Your task to perform on an android device: turn off improve location accuracy Image 0: 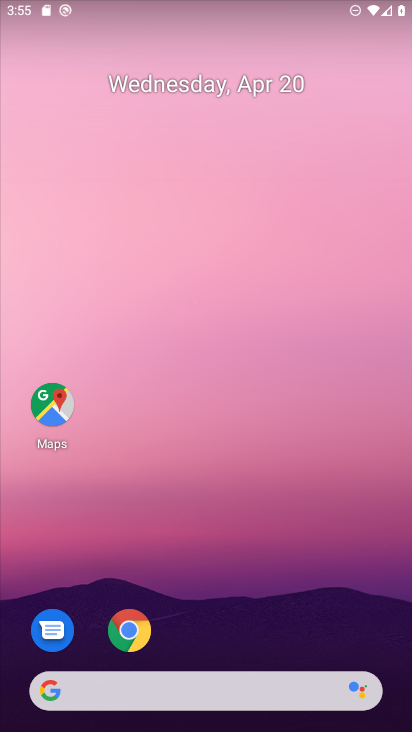
Step 0: drag from (270, 691) to (185, 57)
Your task to perform on an android device: turn off improve location accuracy Image 1: 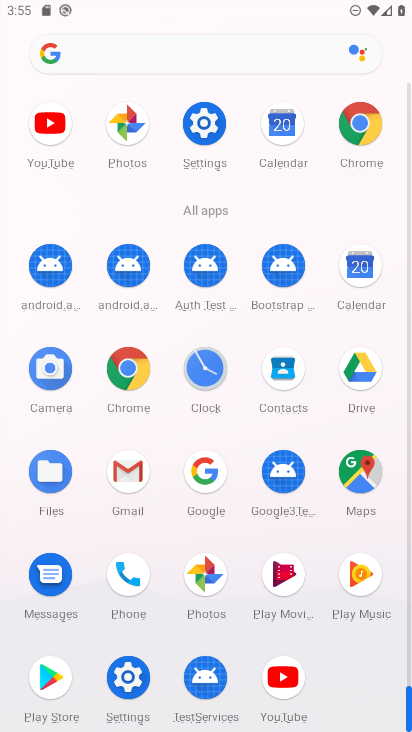
Step 1: click (133, 668)
Your task to perform on an android device: turn off improve location accuracy Image 2: 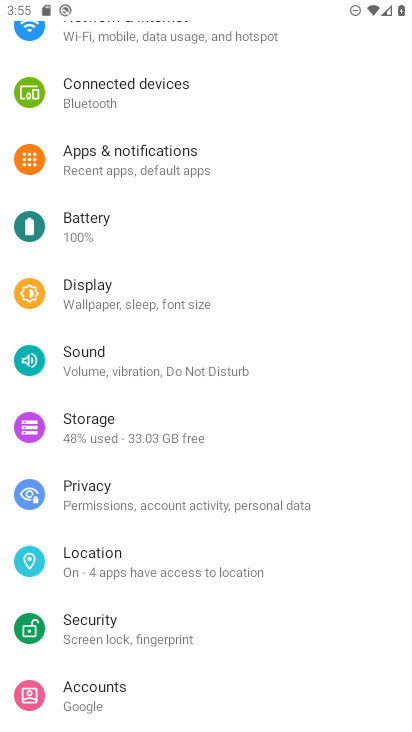
Step 2: click (100, 559)
Your task to perform on an android device: turn off improve location accuracy Image 3: 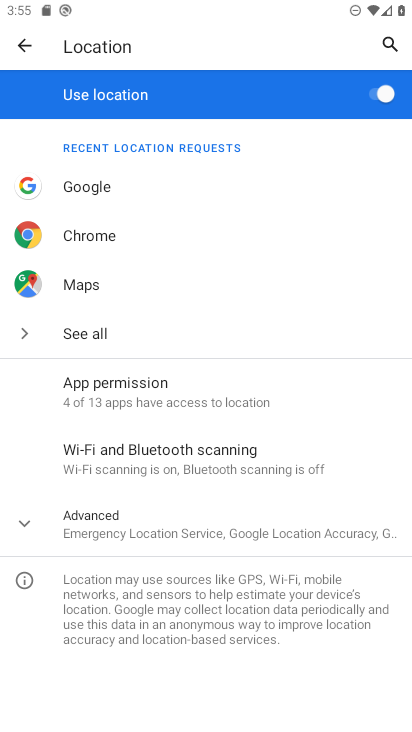
Step 3: click (140, 526)
Your task to perform on an android device: turn off improve location accuracy Image 4: 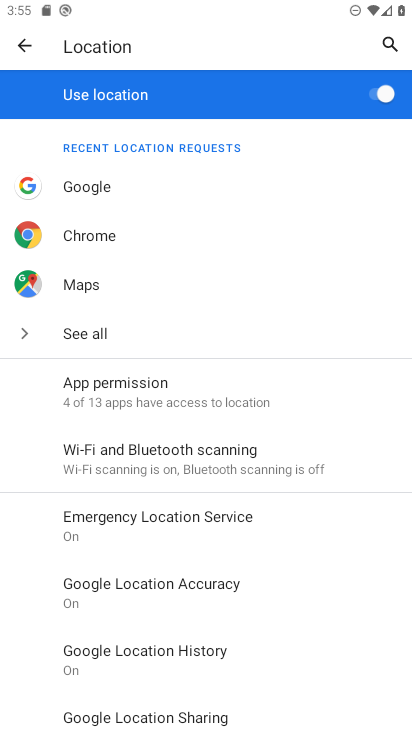
Step 4: click (208, 590)
Your task to perform on an android device: turn off improve location accuracy Image 5: 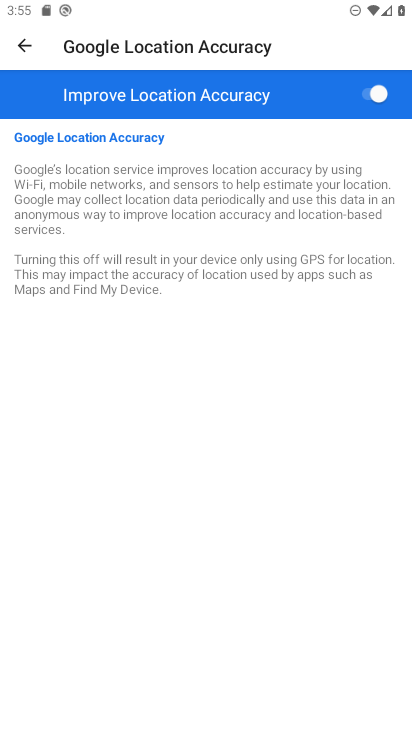
Step 5: click (373, 94)
Your task to perform on an android device: turn off improve location accuracy Image 6: 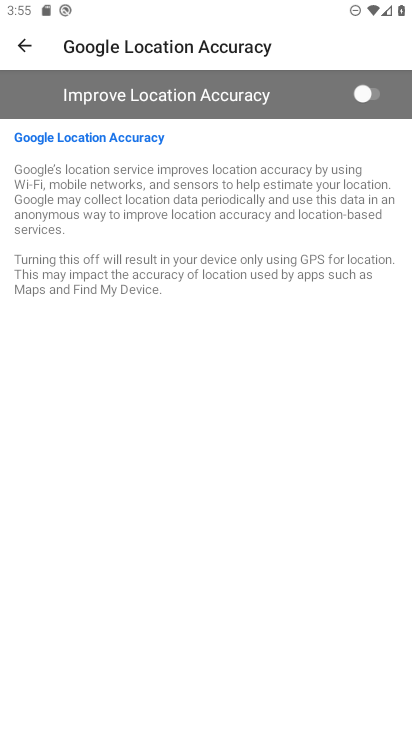
Step 6: task complete